Your task to perform on an android device: Open CNN.com Image 0: 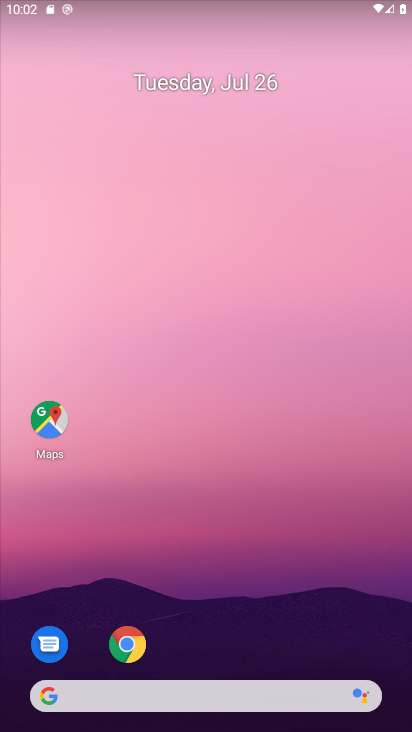
Step 0: click (126, 634)
Your task to perform on an android device: Open CNN.com Image 1: 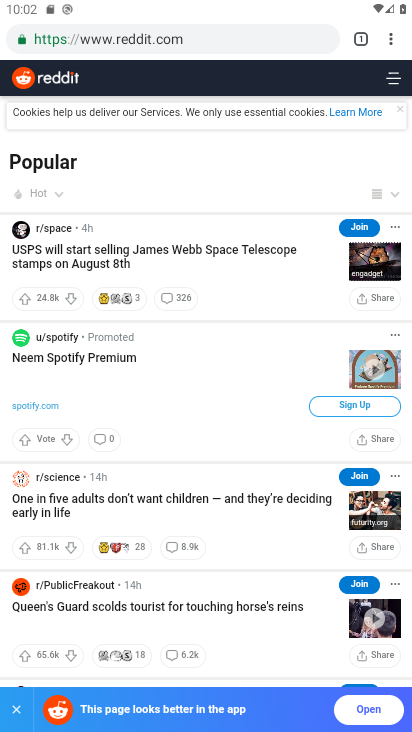
Step 1: click (191, 35)
Your task to perform on an android device: Open CNN.com Image 2: 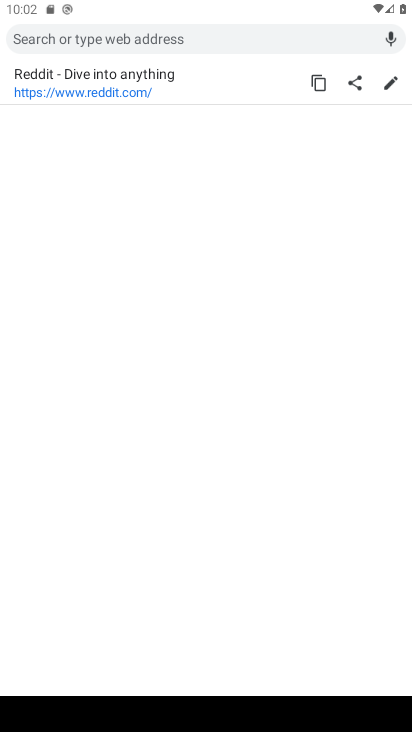
Step 2: type "CNN.com"
Your task to perform on an android device: Open CNN.com Image 3: 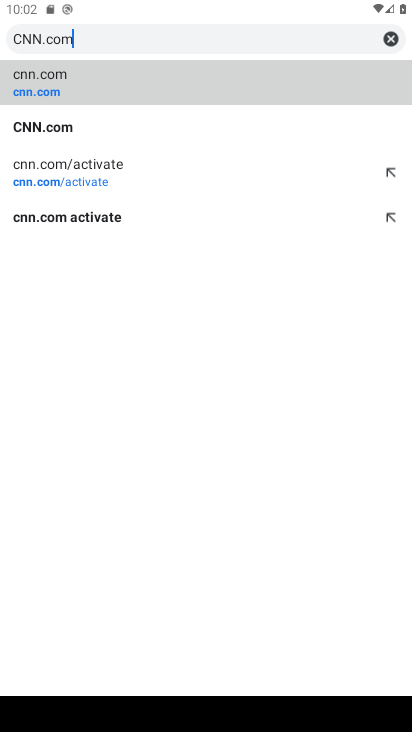
Step 3: click (65, 127)
Your task to perform on an android device: Open CNN.com Image 4: 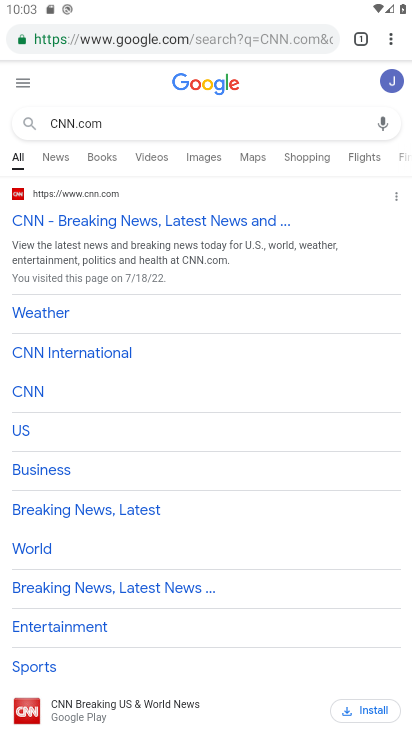
Step 4: task complete